Your task to perform on an android device: Open wifi settings Image 0: 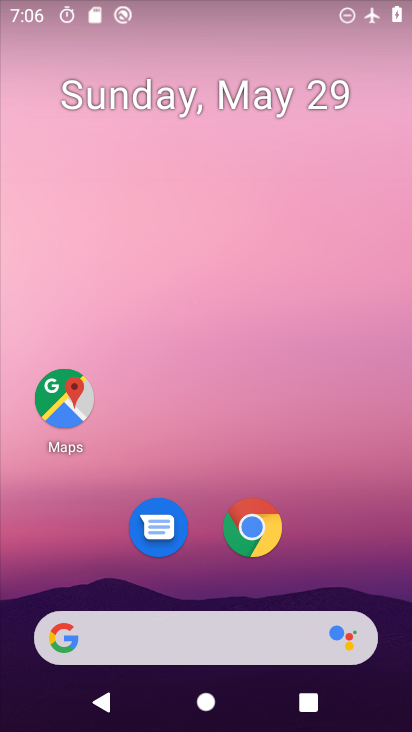
Step 0: drag from (381, 619) to (321, 0)
Your task to perform on an android device: Open wifi settings Image 1: 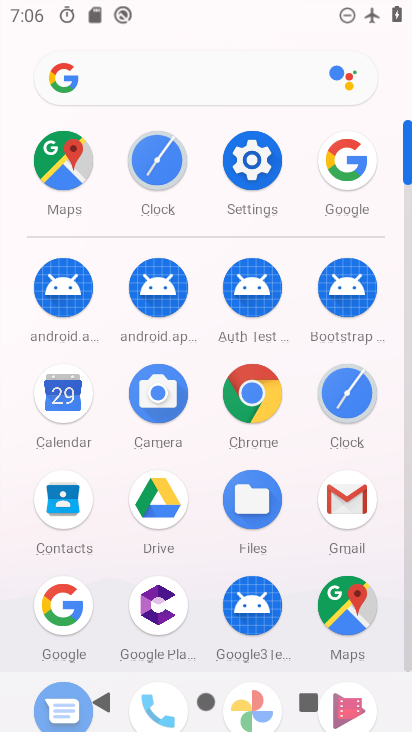
Step 1: click (245, 153)
Your task to perform on an android device: Open wifi settings Image 2: 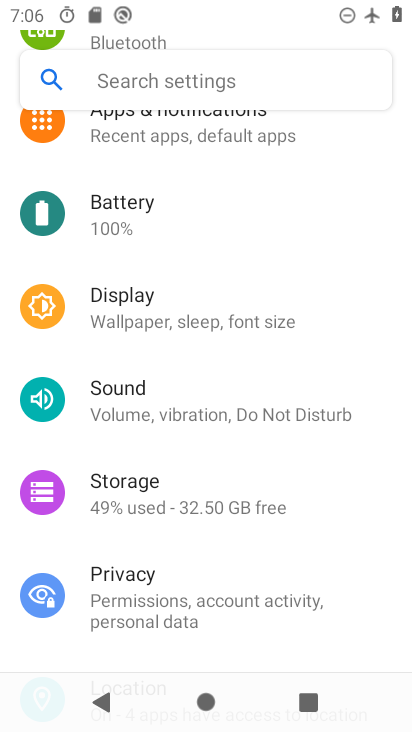
Step 2: drag from (245, 153) to (309, 629)
Your task to perform on an android device: Open wifi settings Image 3: 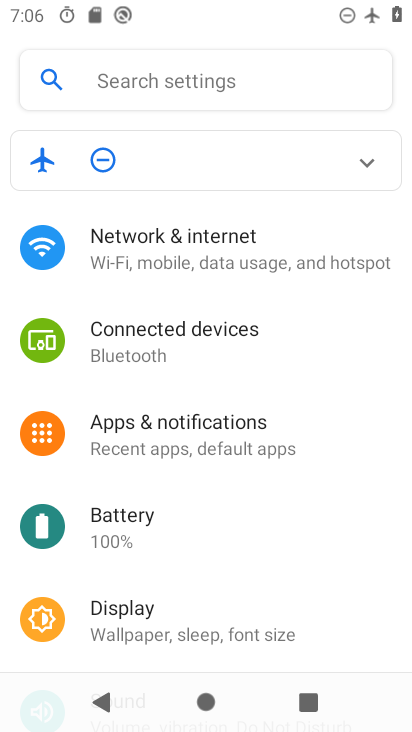
Step 3: click (173, 265)
Your task to perform on an android device: Open wifi settings Image 4: 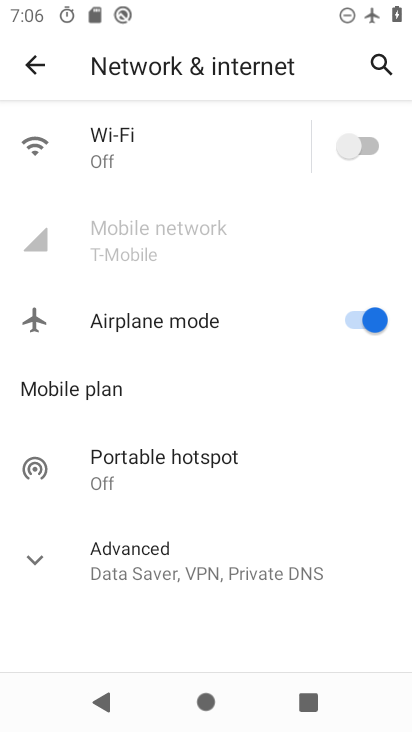
Step 4: click (173, 143)
Your task to perform on an android device: Open wifi settings Image 5: 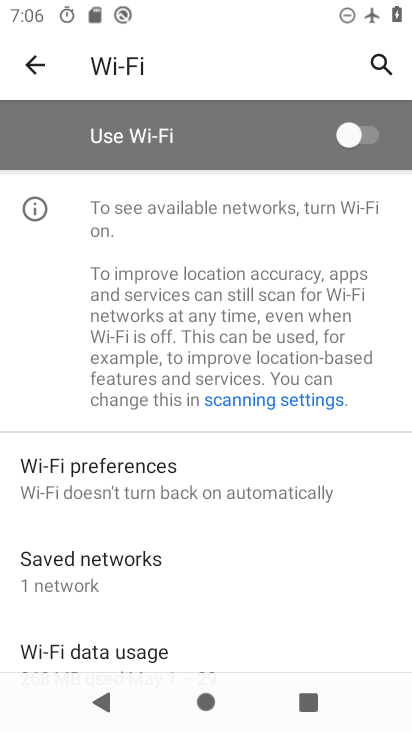
Step 5: task complete